Your task to perform on an android device: Open Google Image 0: 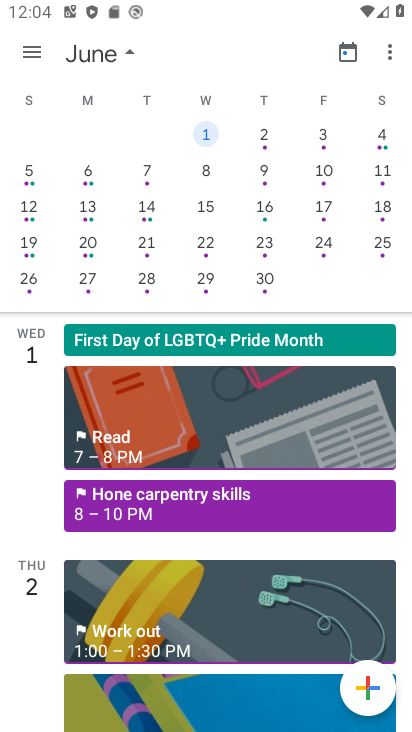
Step 0: press home button
Your task to perform on an android device: Open Google Image 1: 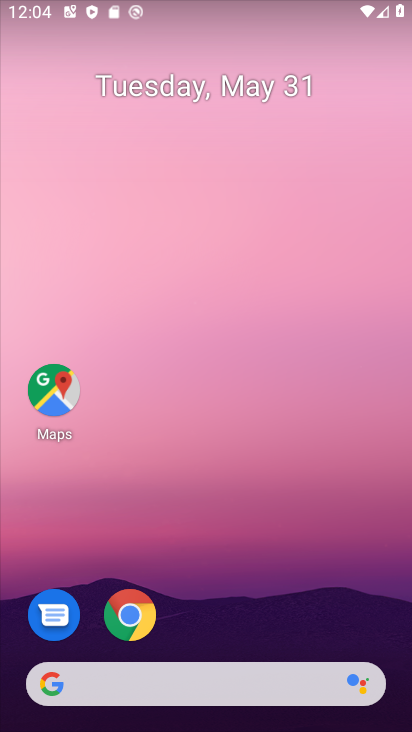
Step 1: drag from (311, 630) to (345, 227)
Your task to perform on an android device: Open Google Image 2: 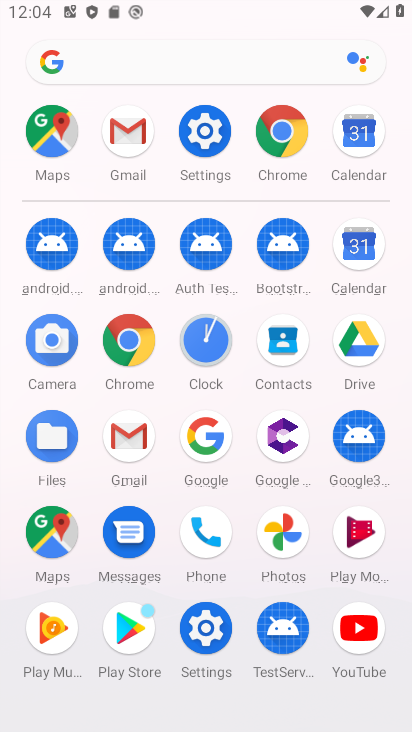
Step 2: click (201, 434)
Your task to perform on an android device: Open Google Image 3: 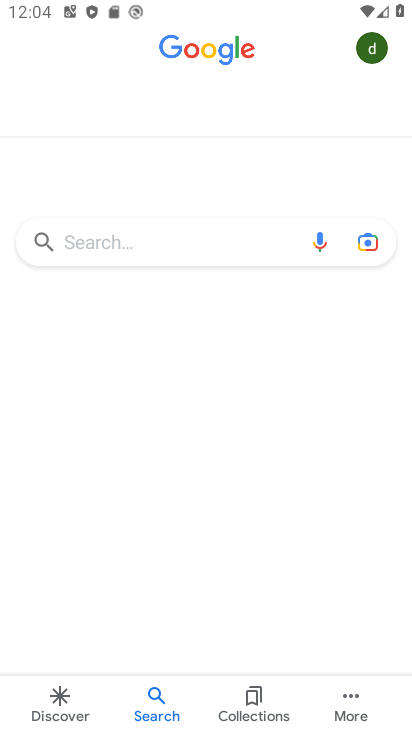
Step 3: task complete